Your task to perform on an android device: Go to calendar. Show me events next week Image 0: 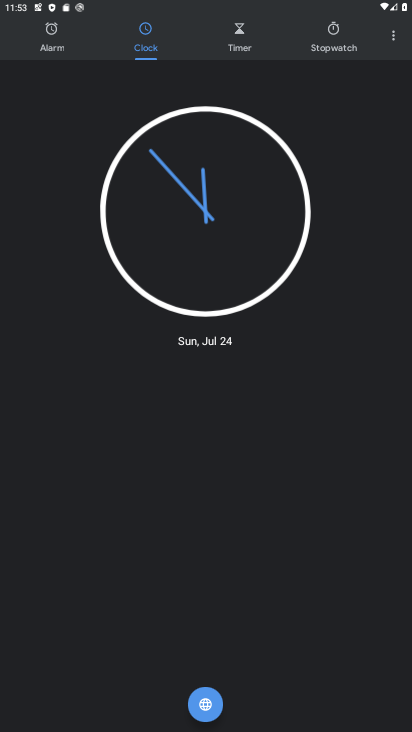
Step 0: press home button
Your task to perform on an android device: Go to calendar. Show me events next week Image 1: 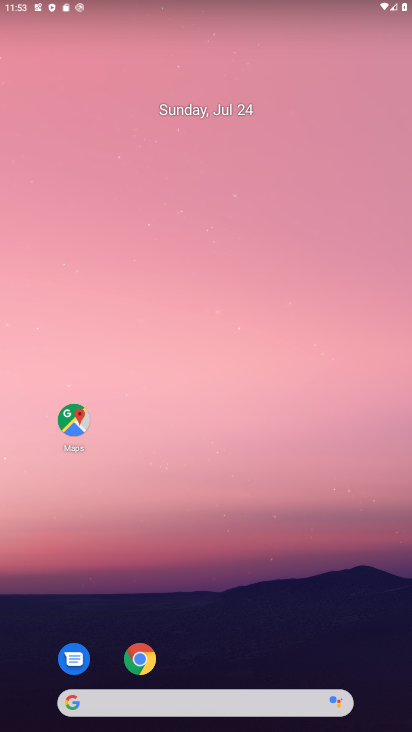
Step 1: drag from (63, 623) to (159, 153)
Your task to perform on an android device: Go to calendar. Show me events next week Image 2: 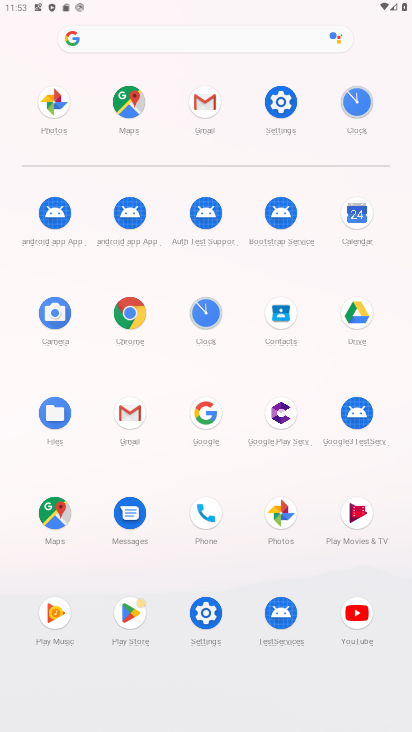
Step 2: click (373, 207)
Your task to perform on an android device: Go to calendar. Show me events next week Image 3: 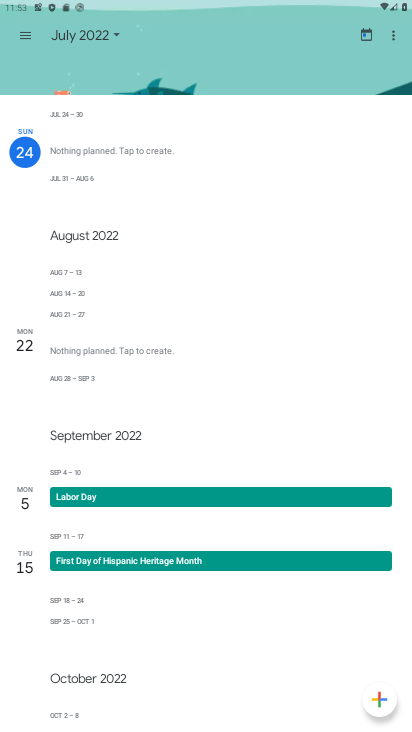
Step 3: click (115, 40)
Your task to perform on an android device: Go to calendar. Show me events next week Image 4: 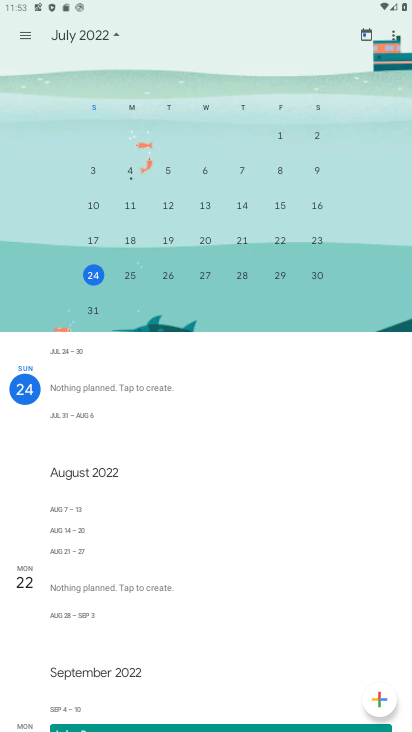
Step 4: task complete